Your task to perform on an android device: Open Yahoo.com Image 0: 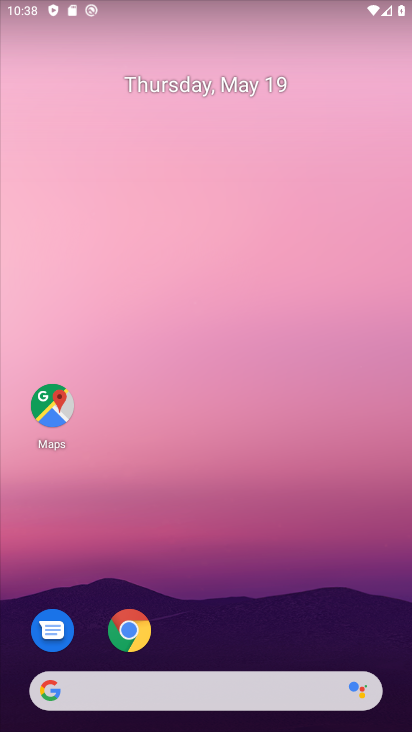
Step 0: click (133, 629)
Your task to perform on an android device: Open Yahoo.com Image 1: 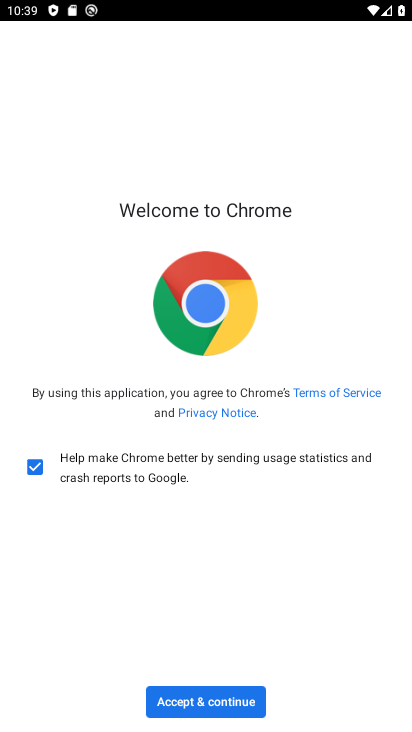
Step 1: click (133, 629)
Your task to perform on an android device: Open Yahoo.com Image 2: 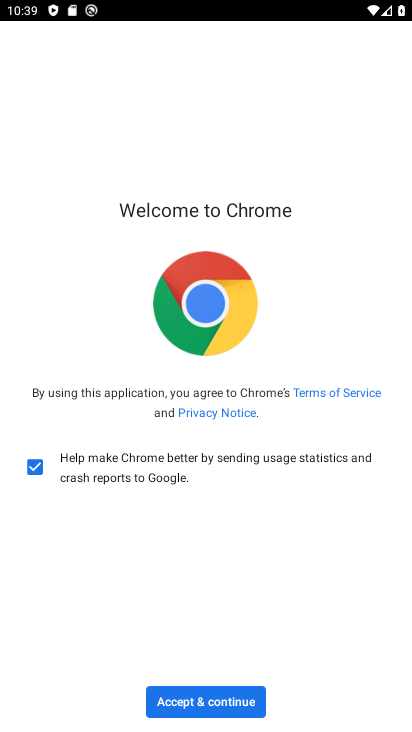
Step 2: click (219, 699)
Your task to perform on an android device: Open Yahoo.com Image 3: 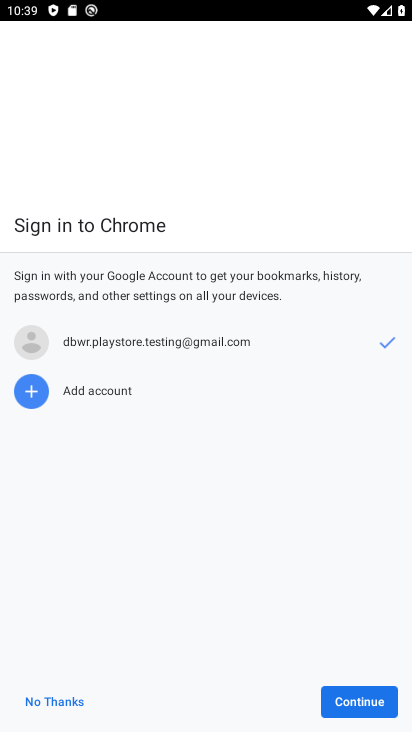
Step 3: click (338, 700)
Your task to perform on an android device: Open Yahoo.com Image 4: 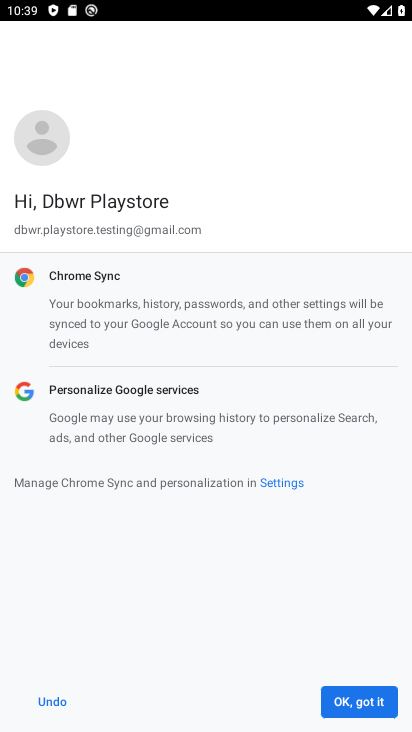
Step 4: click (338, 700)
Your task to perform on an android device: Open Yahoo.com Image 5: 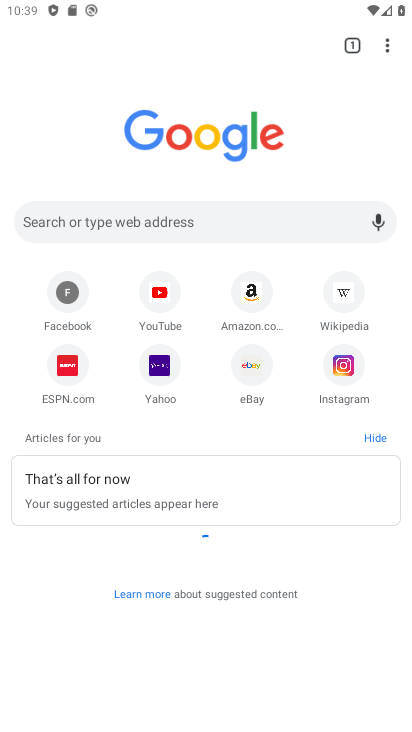
Step 5: click (338, 700)
Your task to perform on an android device: Open Yahoo.com Image 6: 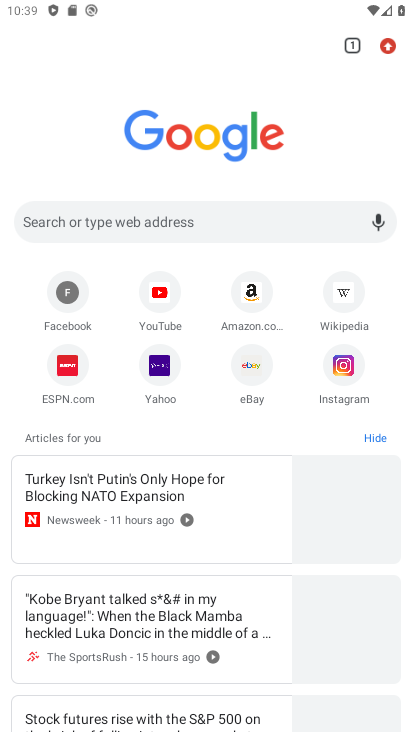
Step 6: click (156, 371)
Your task to perform on an android device: Open Yahoo.com Image 7: 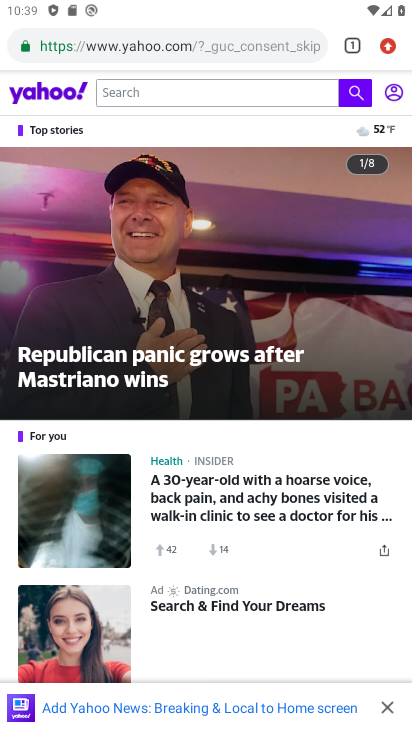
Step 7: task complete